Your task to perform on an android device: Open ESPN.com Image 0: 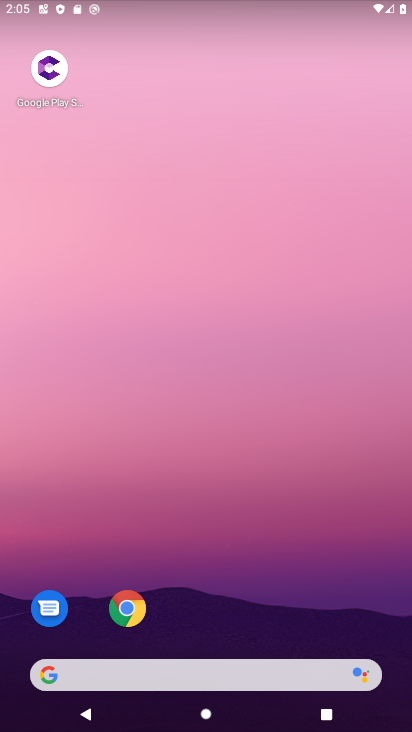
Step 0: click (132, 606)
Your task to perform on an android device: Open ESPN.com Image 1: 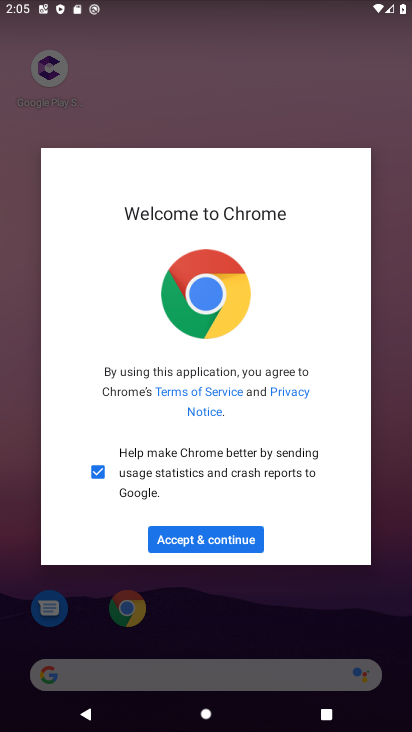
Step 1: click (197, 548)
Your task to perform on an android device: Open ESPN.com Image 2: 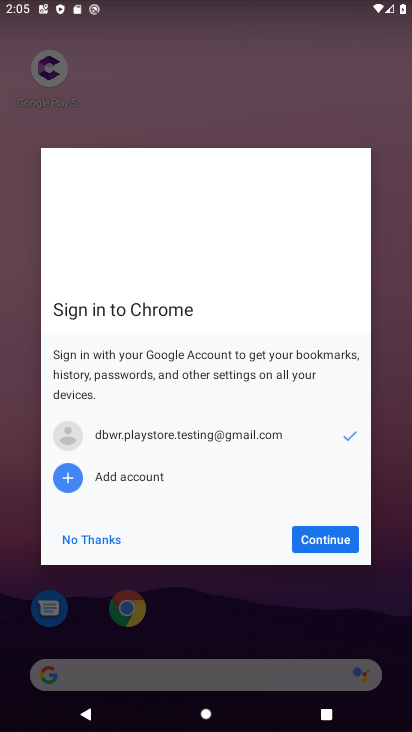
Step 2: click (303, 534)
Your task to perform on an android device: Open ESPN.com Image 3: 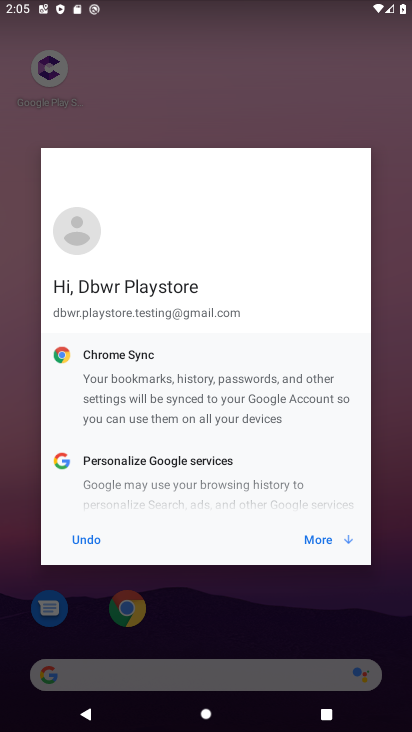
Step 3: click (329, 540)
Your task to perform on an android device: Open ESPN.com Image 4: 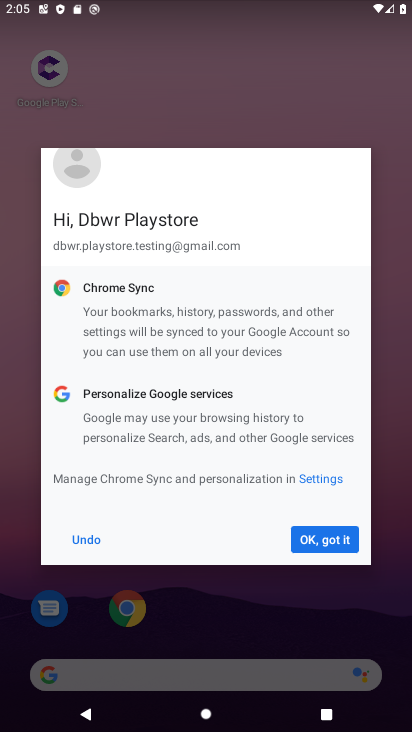
Step 4: click (327, 539)
Your task to perform on an android device: Open ESPN.com Image 5: 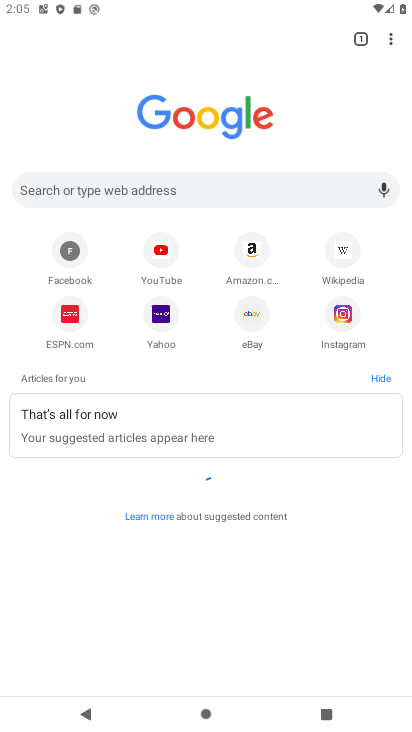
Step 5: click (77, 318)
Your task to perform on an android device: Open ESPN.com Image 6: 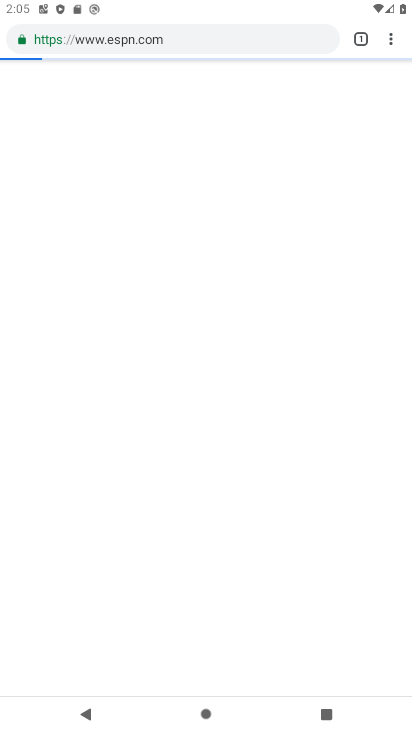
Step 6: task complete